Your task to perform on an android device: turn on the 24-hour format for clock Image 0: 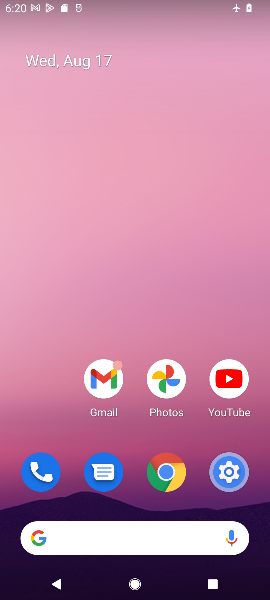
Step 0: drag from (59, 352) to (108, 0)
Your task to perform on an android device: turn on the 24-hour format for clock Image 1: 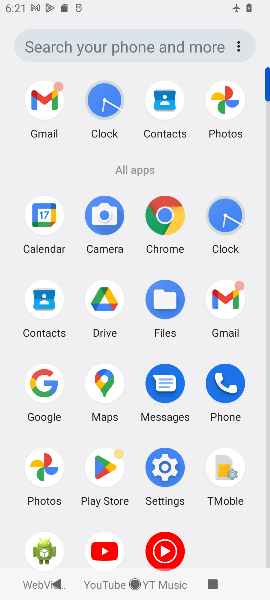
Step 1: click (101, 101)
Your task to perform on an android device: turn on the 24-hour format for clock Image 2: 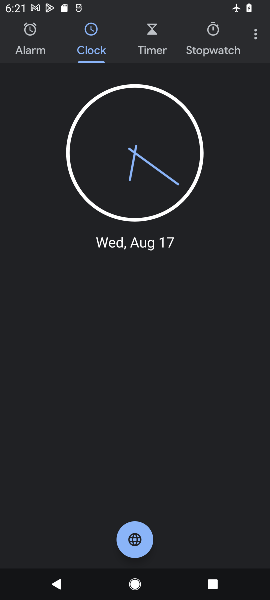
Step 2: click (254, 36)
Your task to perform on an android device: turn on the 24-hour format for clock Image 3: 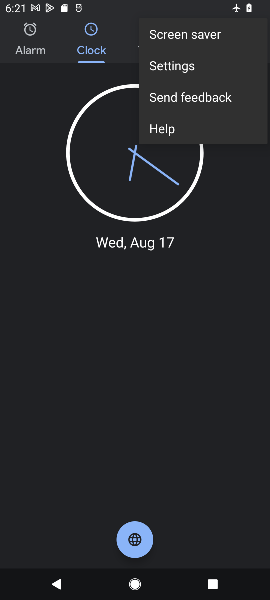
Step 3: click (203, 71)
Your task to perform on an android device: turn on the 24-hour format for clock Image 4: 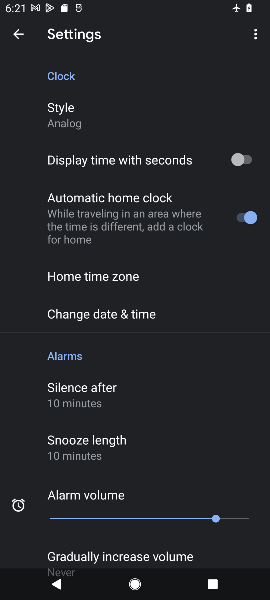
Step 4: drag from (140, 457) to (152, 124)
Your task to perform on an android device: turn on the 24-hour format for clock Image 5: 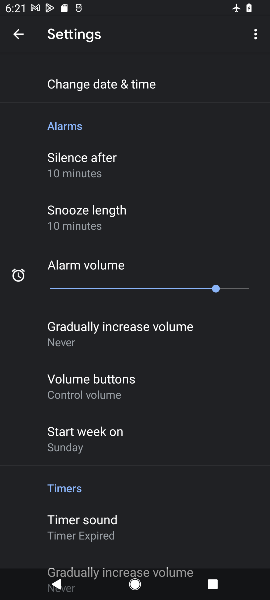
Step 5: drag from (159, 435) to (150, 188)
Your task to perform on an android device: turn on the 24-hour format for clock Image 6: 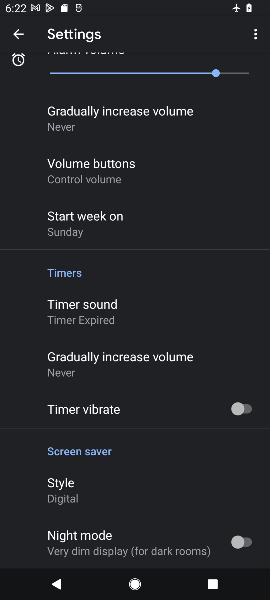
Step 6: drag from (163, 223) to (141, 515)
Your task to perform on an android device: turn on the 24-hour format for clock Image 7: 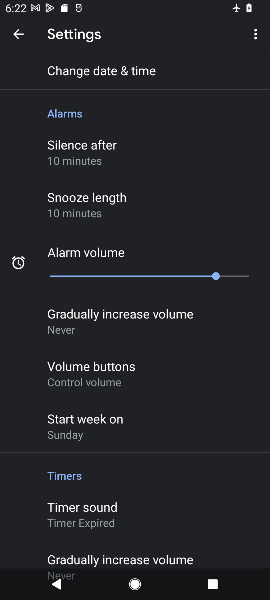
Step 7: click (178, 63)
Your task to perform on an android device: turn on the 24-hour format for clock Image 8: 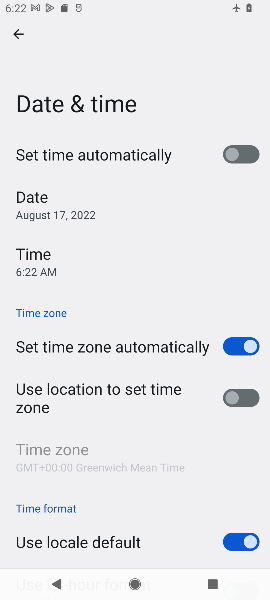
Step 8: drag from (172, 431) to (185, 200)
Your task to perform on an android device: turn on the 24-hour format for clock Image 9: 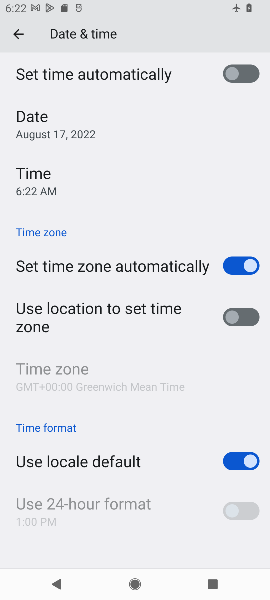
Step 9: click (238, 460)
Your task to perform on an android device: turn on the 24-hour format for clock Image 10: 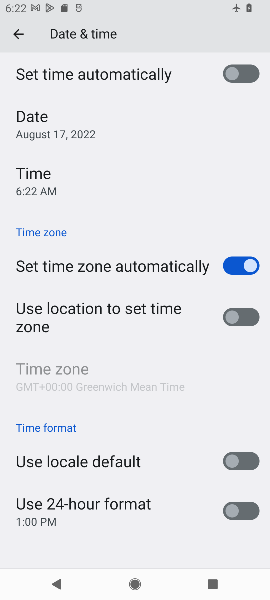
Step 10: click (246, 508)
Your task to perform on an android device: turn on the 24-hour format for clock Image 11: 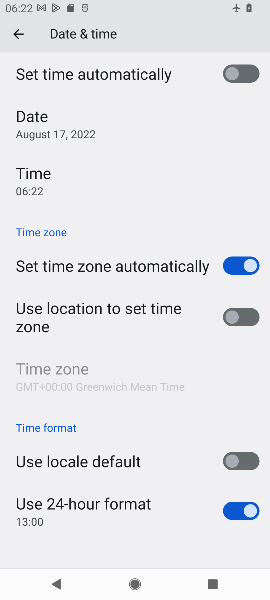
Step 11: task complete